Your task to perform on an android device: open a new tab in the chrome app Image 0: 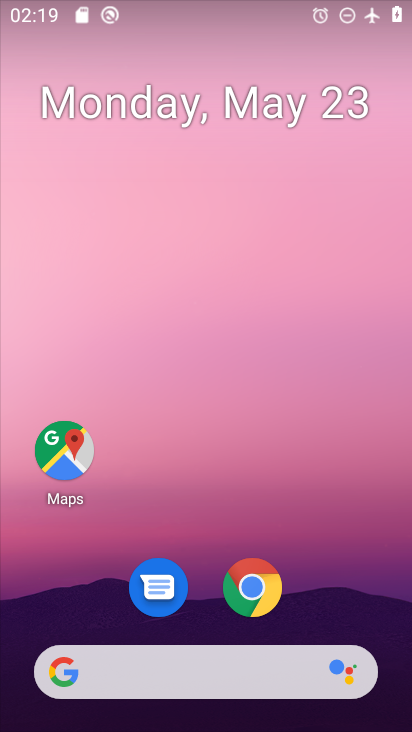
Step 0: click (266, 591)
Your task to perform on an android device: open a new tab in the chrome app Image 1: 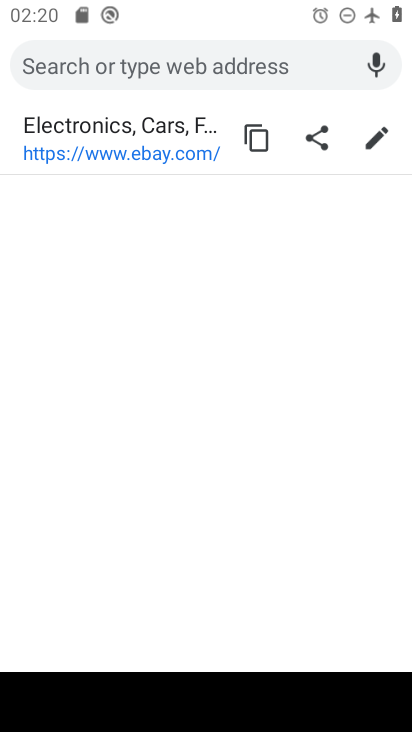
Step 1: press back button
Your task to perform on an android device: open a new tab in the chrome app Image 2: 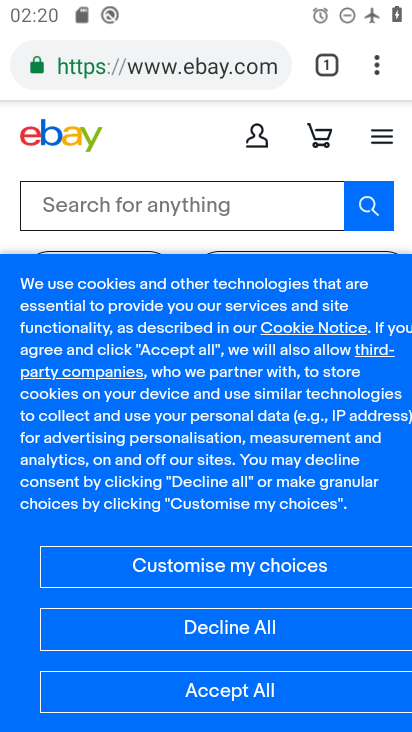
Step 2: click (391, 83)
Your task to perform on an android device: open a new tab in the chrome app Image 3: 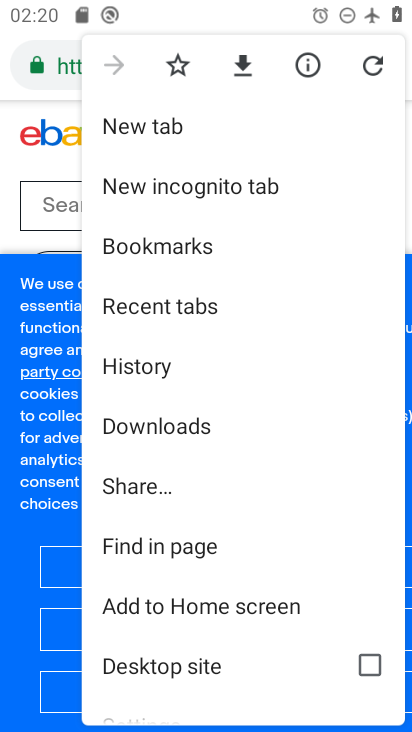
Step 3: click (131, 136)
Your task to perform on an android device: open a new tab in the chrome app Image 4: 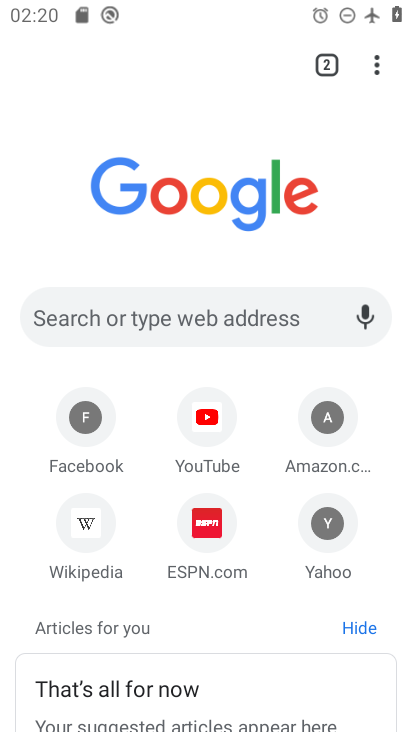
Step 4: task complete